Your task to perform on an android device: check battery use Image 0: 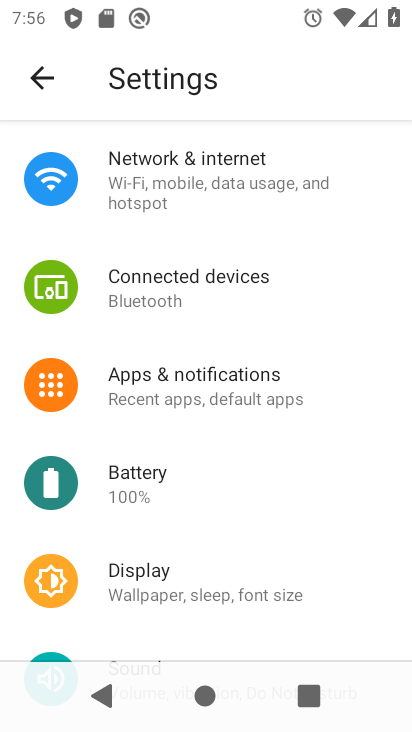
Step 0: drag from (271, 531) to (270, 221)
Your task to perform on an android device: check battery use Image 1: 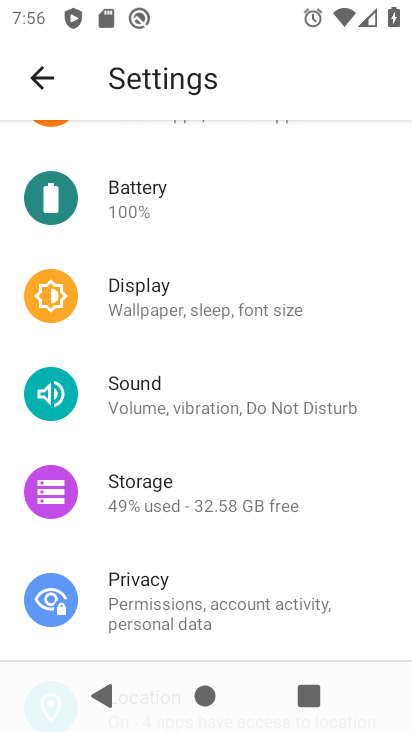
Step 1: click (178, 199)
Your task to perform on an android device: check battery use Image 2: 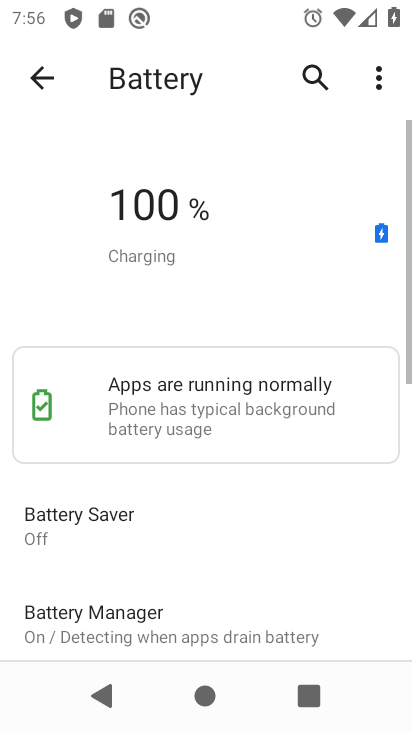
Step 2: task complete